Your task to perform on an android device: set default search engine in the chrome app Image 0: 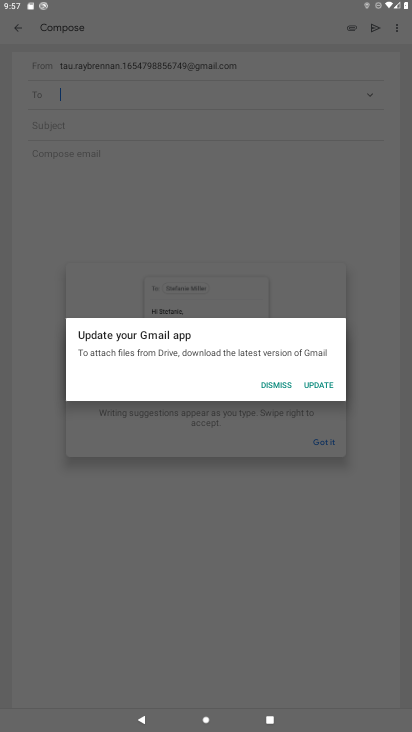
Step 0: press home button
Your task to perform on an android device: set default search engine in the chrome app Image 1: 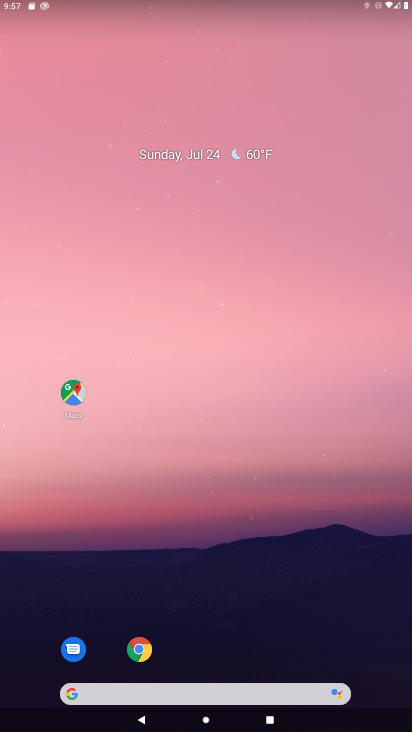
Step 1: drag from (275, 631) to (263, 105)
Your task to perform on an android device: set default search engine in the chrome app Image 2: 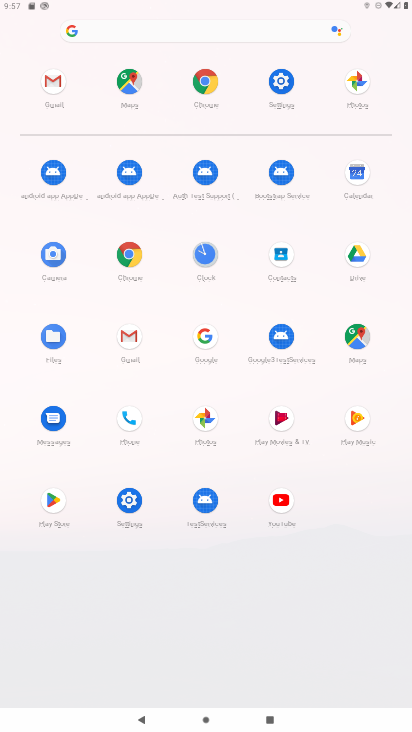
Step 2: click (125, 256)
Your task to perform on an android device: set default search engine in the chrome app Image 3: 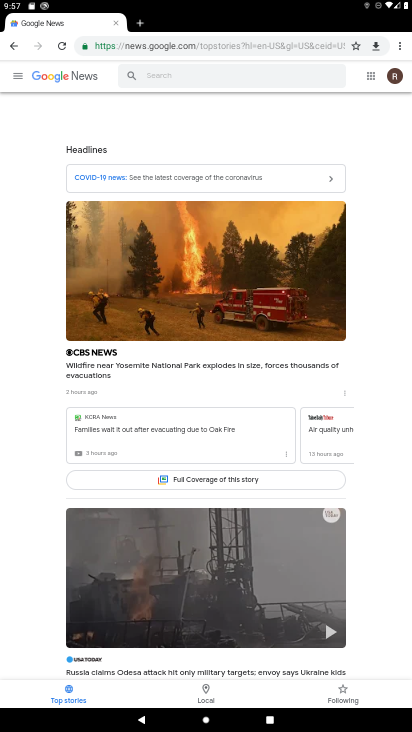
Step 3: drag from (399, 45) to (309, 330)
Your task to perform on an android device: set default search engine in the chrome app Image 4: 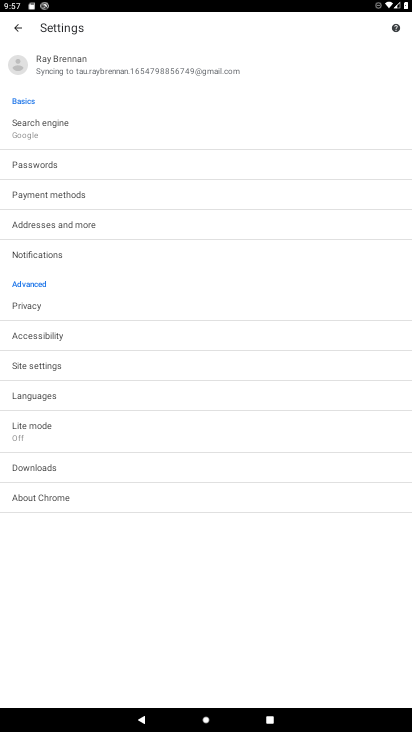
Step 4: click (13, 137)
Your task to perform on an android device: set default search engine in the chrome app Image 5: 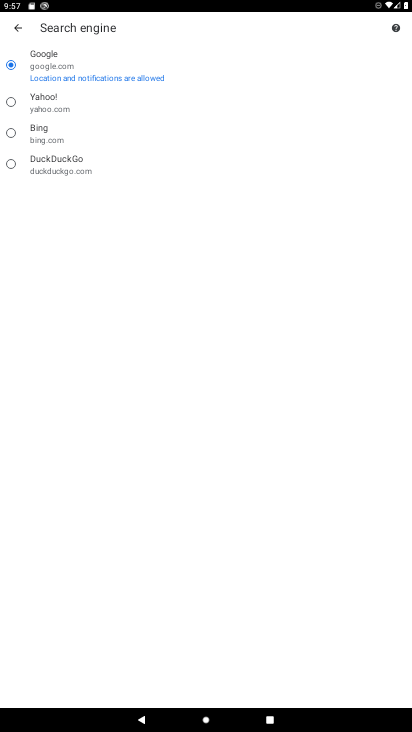
Step 5: task complete